Your task to perform on an android device: View the shopping cart on bestbuy.com. Search for "energizer triple a" on bestbuy.com, select the first entry, and add it to the cart. Image 0: 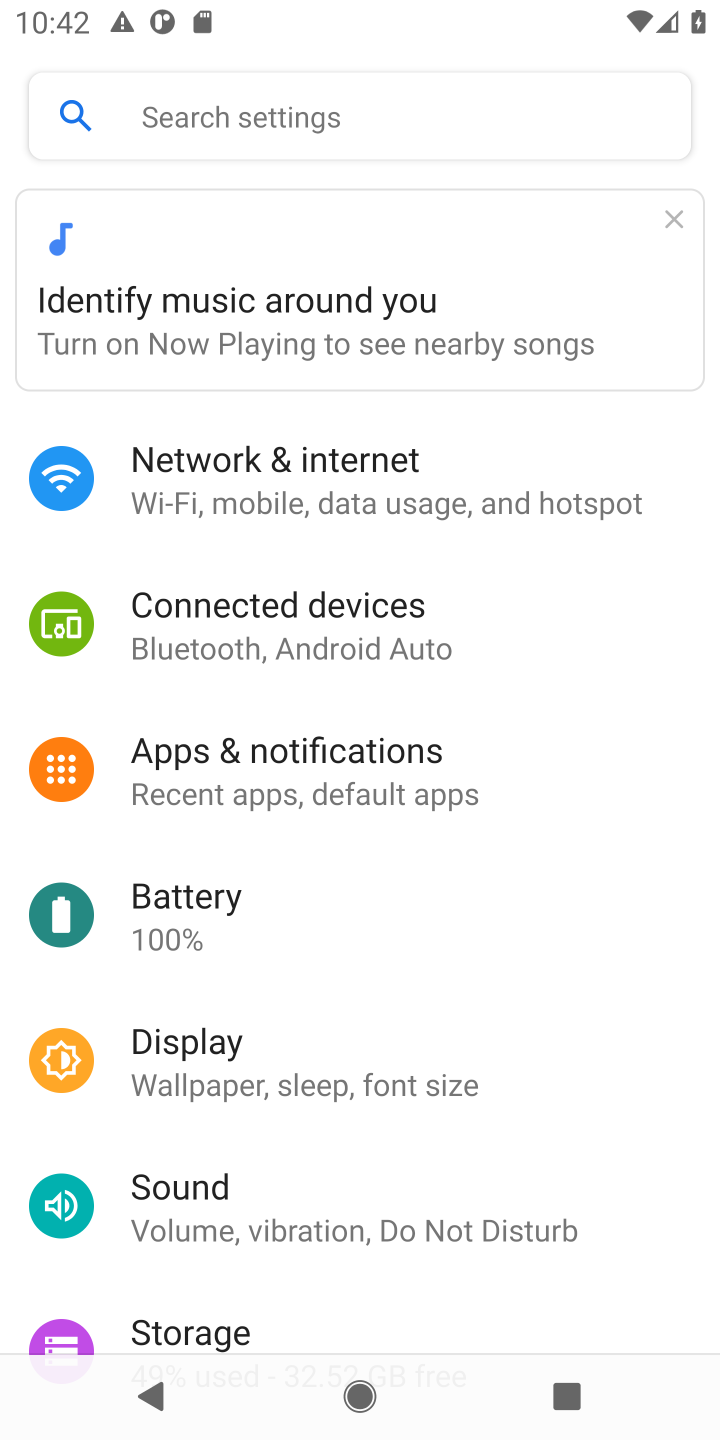
Step 0: press home button
Your task to perform on an android device: View the shopping cart on bestbuy.com. Search for "energizer triple a" on bestbuy.com, select the first entry, and add it to the cart. Image 1: 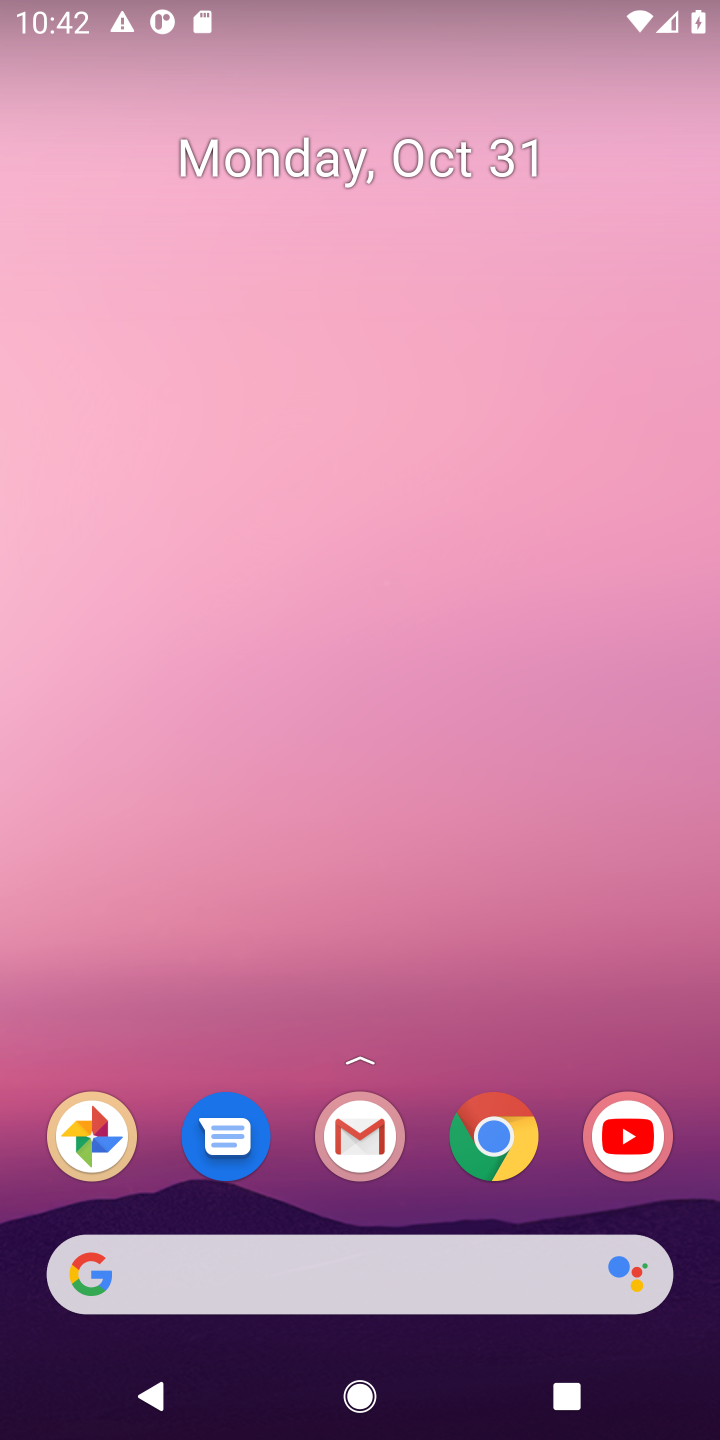
Step 1: press home button
Your task to perform on an android device: View the shopping cart on bestbuy.com. Search for "energizer triple a" on bestbuy.com, select the first entry, and add it to the cart. Image 2: 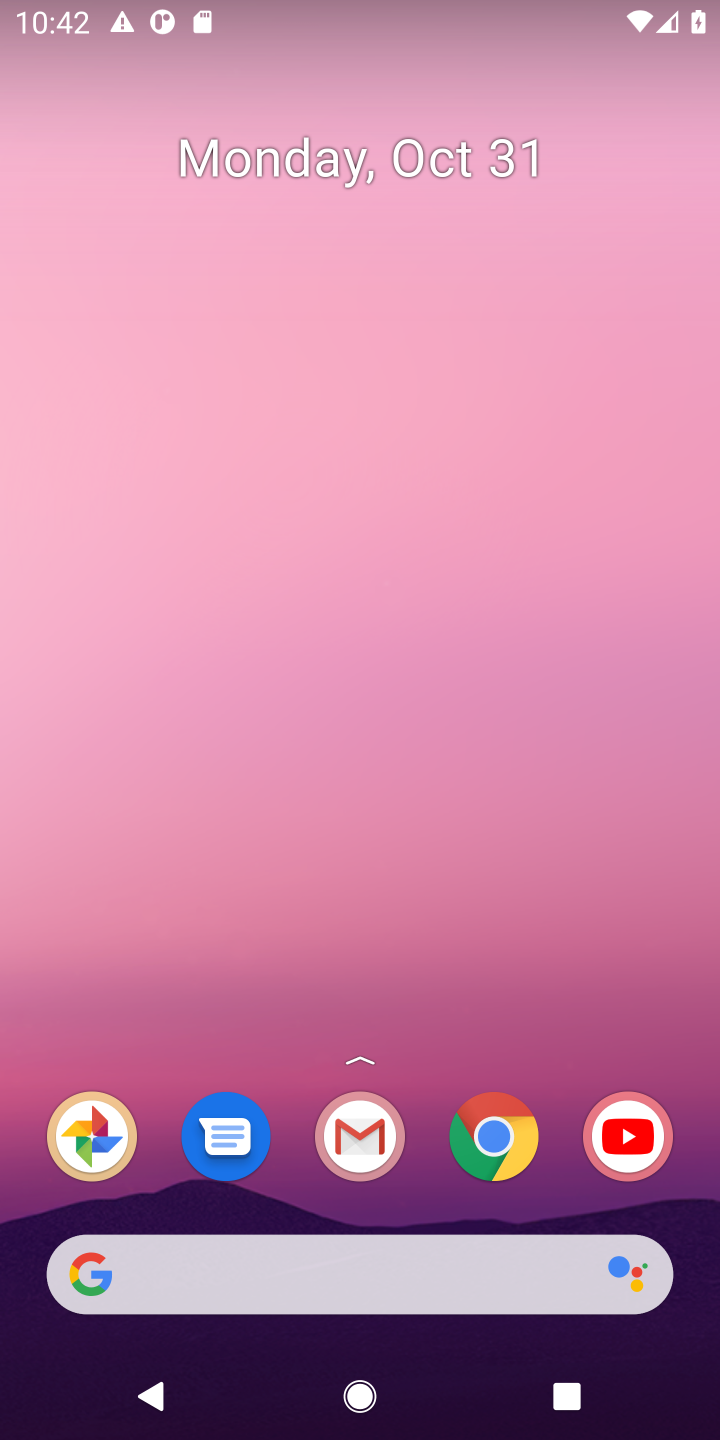
Step 2: click (175, 1265)
Your task to perform on an android device: View the shopping cart on bestbuy.com. Search for "energizer triple a" on bestbuy.com, select the first entry, and add it to the cart. Image 3: 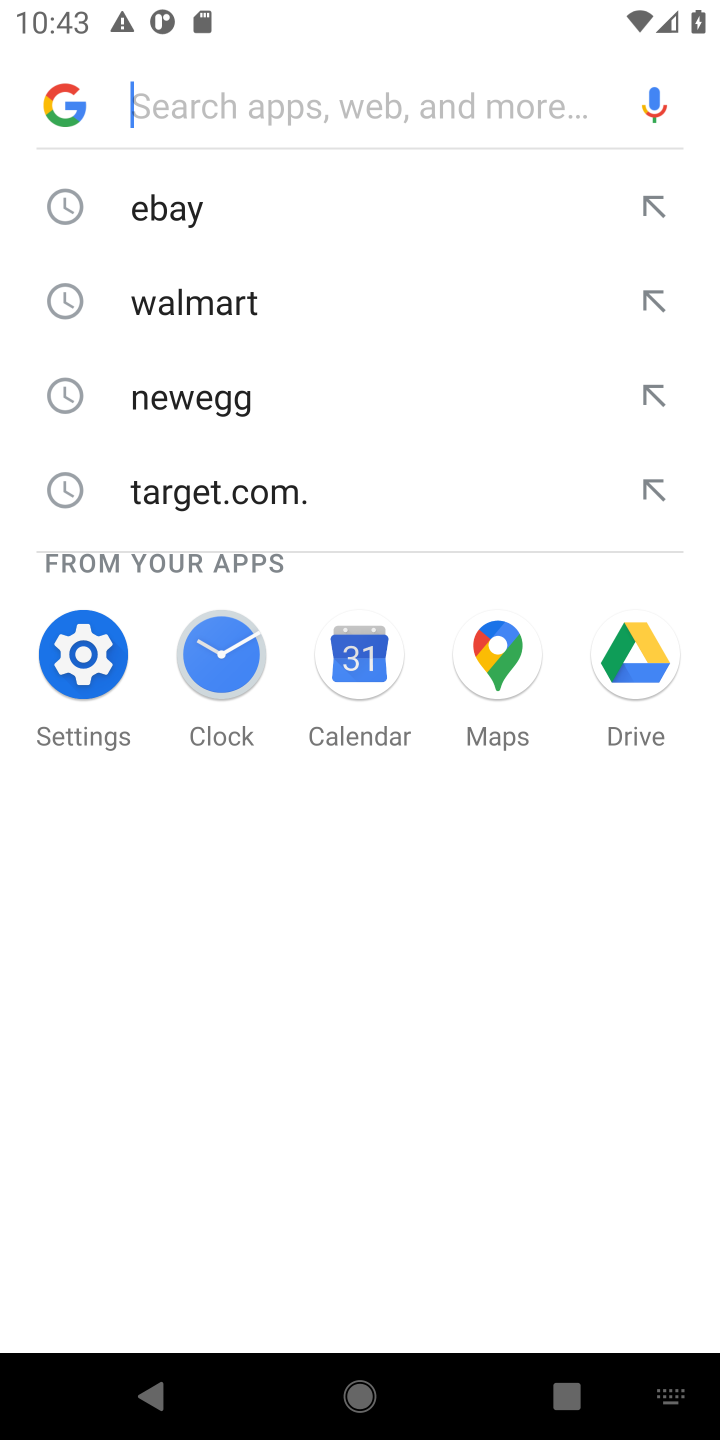
Step 3: press enter
Your task to perform on an android device: View the shopping cart on bestbuy.com. Search for "energizer triple a" on bestbuy.com, select the first entry, and add it to the cart. Image 4: 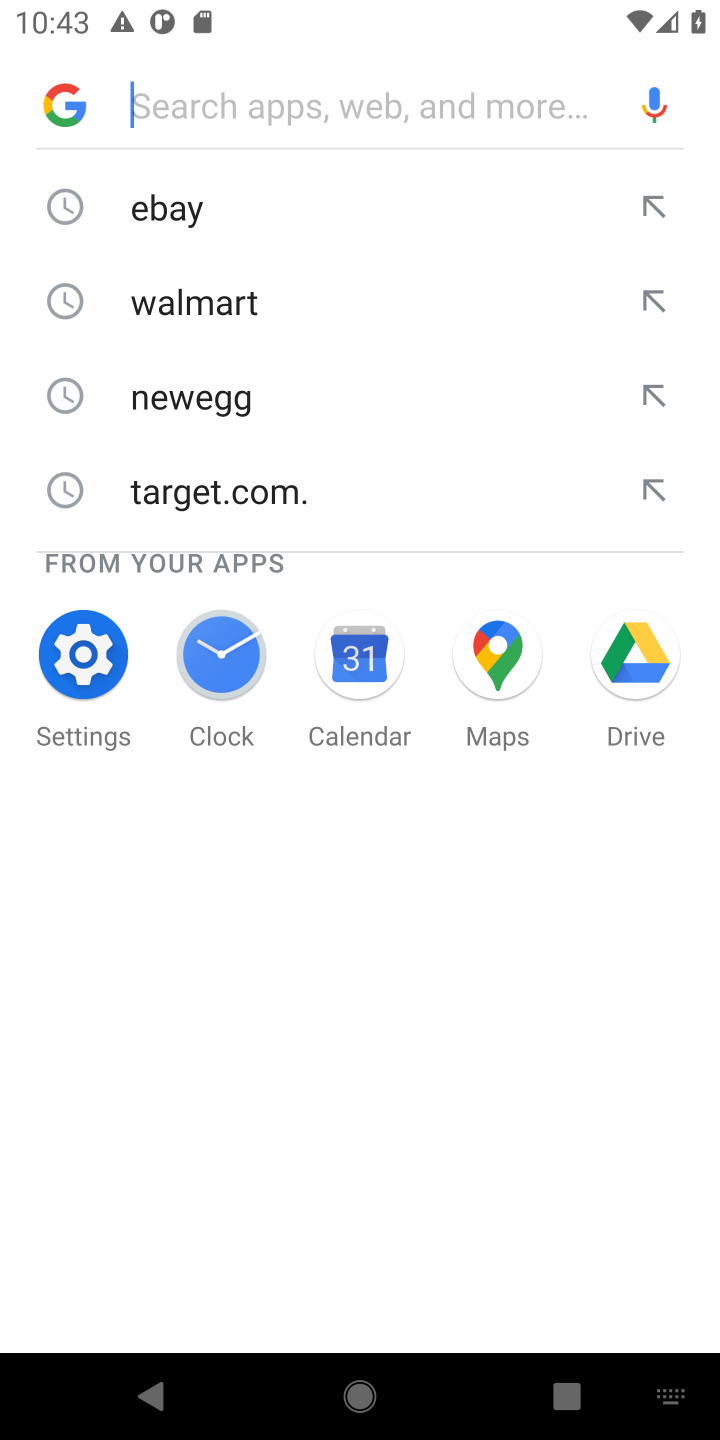
Step 4: type "bestbuy.com"
Your task to perform on an android device: View the shopping cart on bestbuy.com. Search for "energizer triple a" on bestbuy.com, select the first entry, and add it to the cart. Image 5: 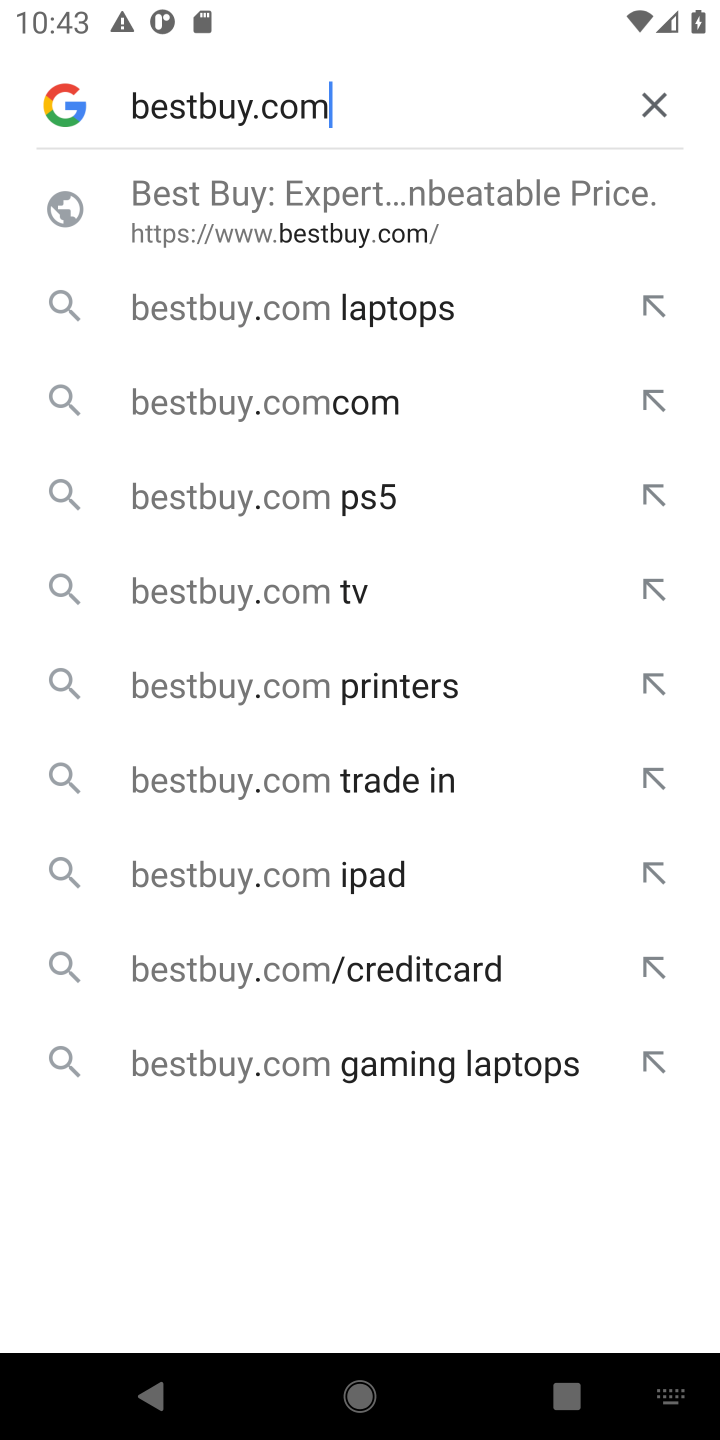
Step 5: press enter
Your task to perform on an android device: View the shopping cart on bestbuy.com. Search for "energizer triple a" on bestbuy.com, select the first entry, and add it to the cart. Image 6: 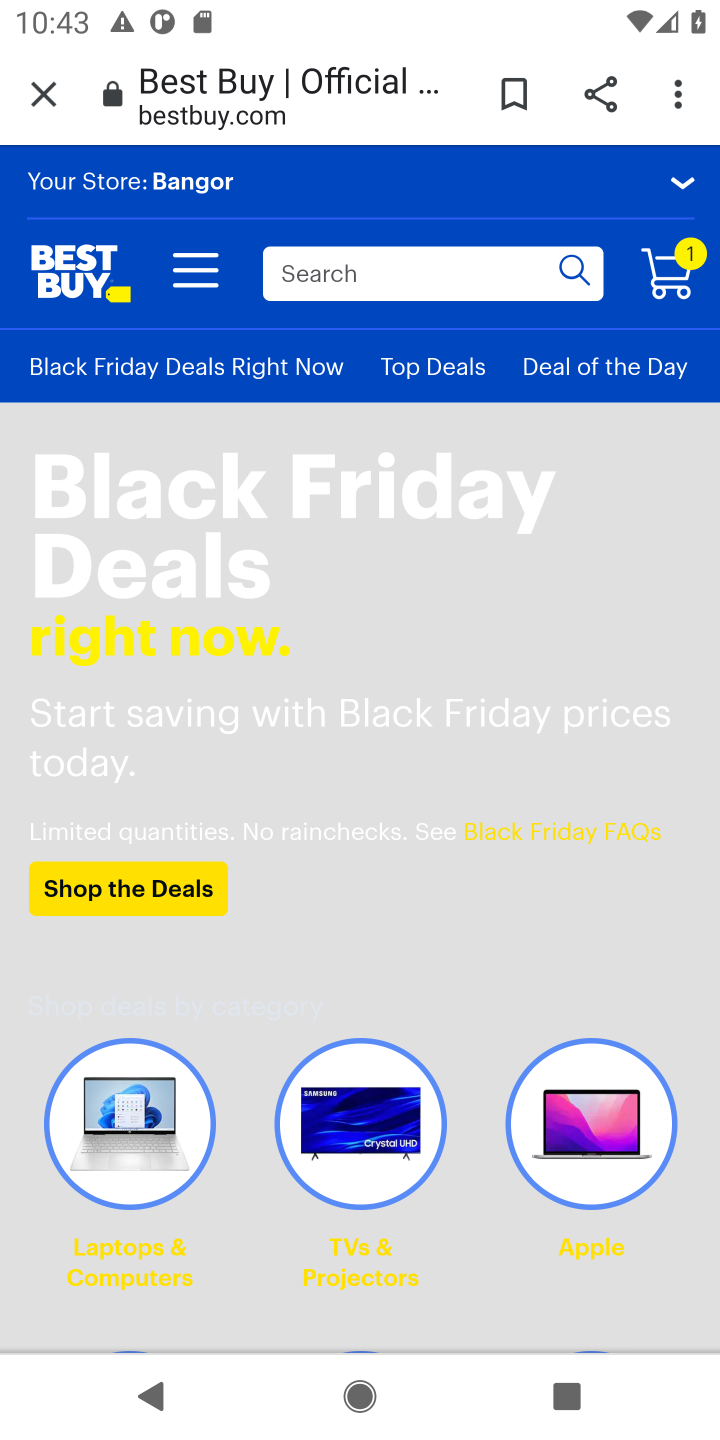
Step 6: click (677, 266)
Your task to perform on an android device: View the shopping cart on bestbuy.com. Search for "energizer triple a" on bestbuy.com, select the first entry, and add it to the cart. Image 7: 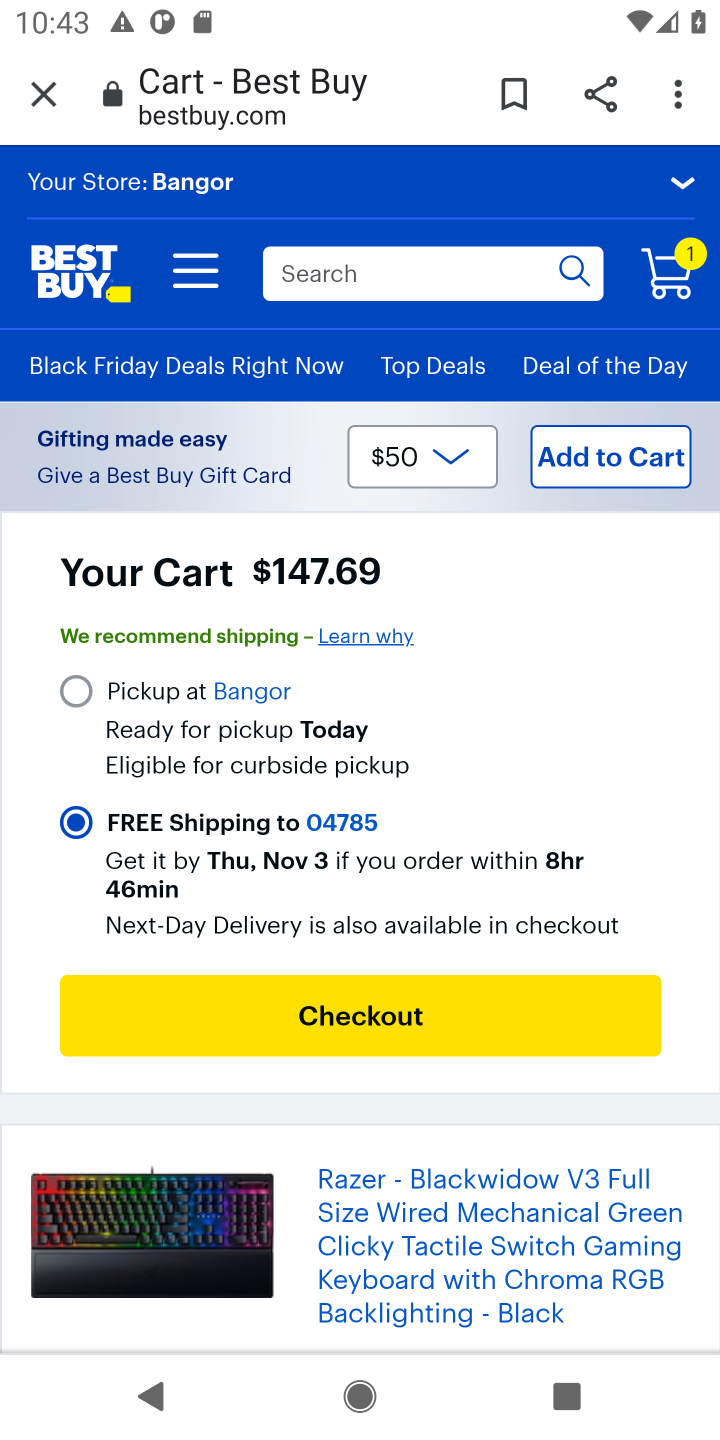
Step 7: click (341, 270)
Your task to perform on an android device: View the shopping cart on bestbuy.com. Search for "energizer triple a" on bestbuy.com, select the first entry, and add it to the cart. Image 8: 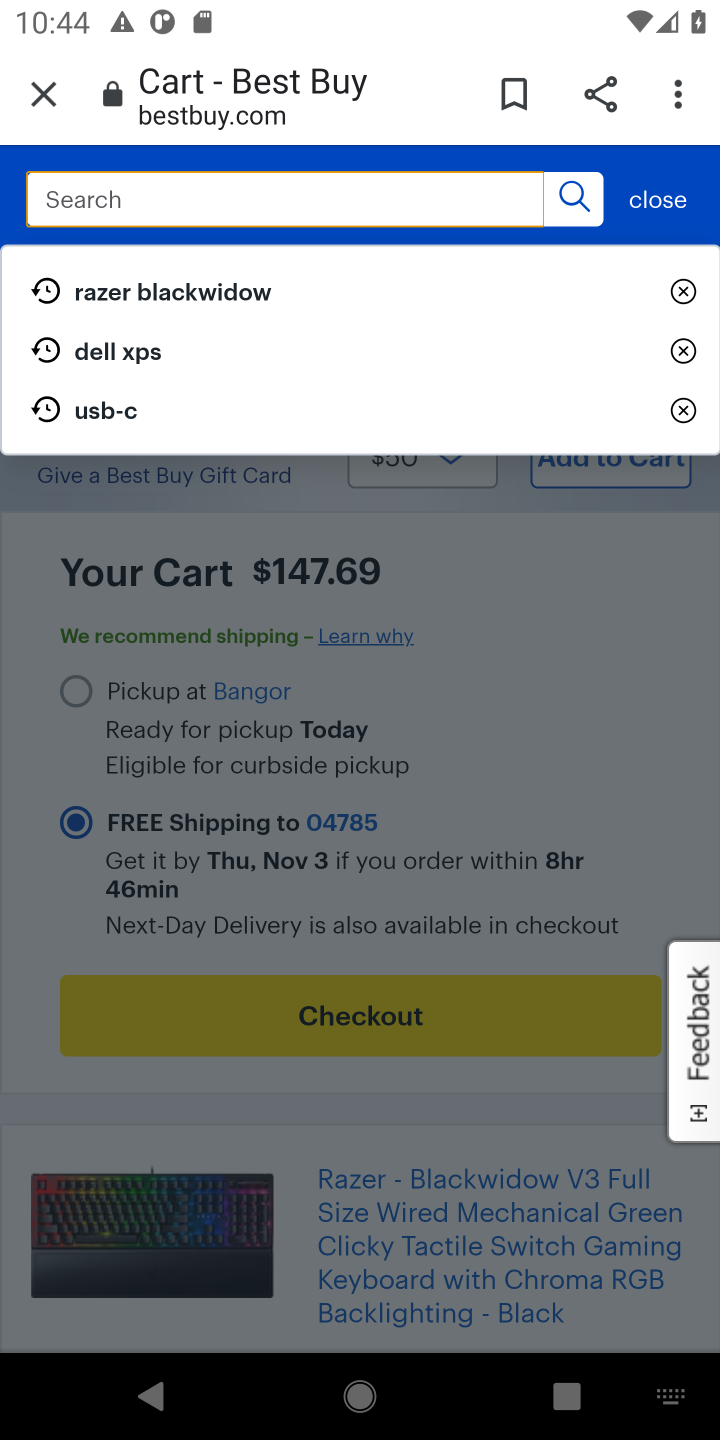
Step 8: press enter
Your task to perform on an android device: View the shopping cart on bestbuy.com. Search for "energizer triple a" on bestbuy.com, select the first entry, and add it to the cart. Image 9: 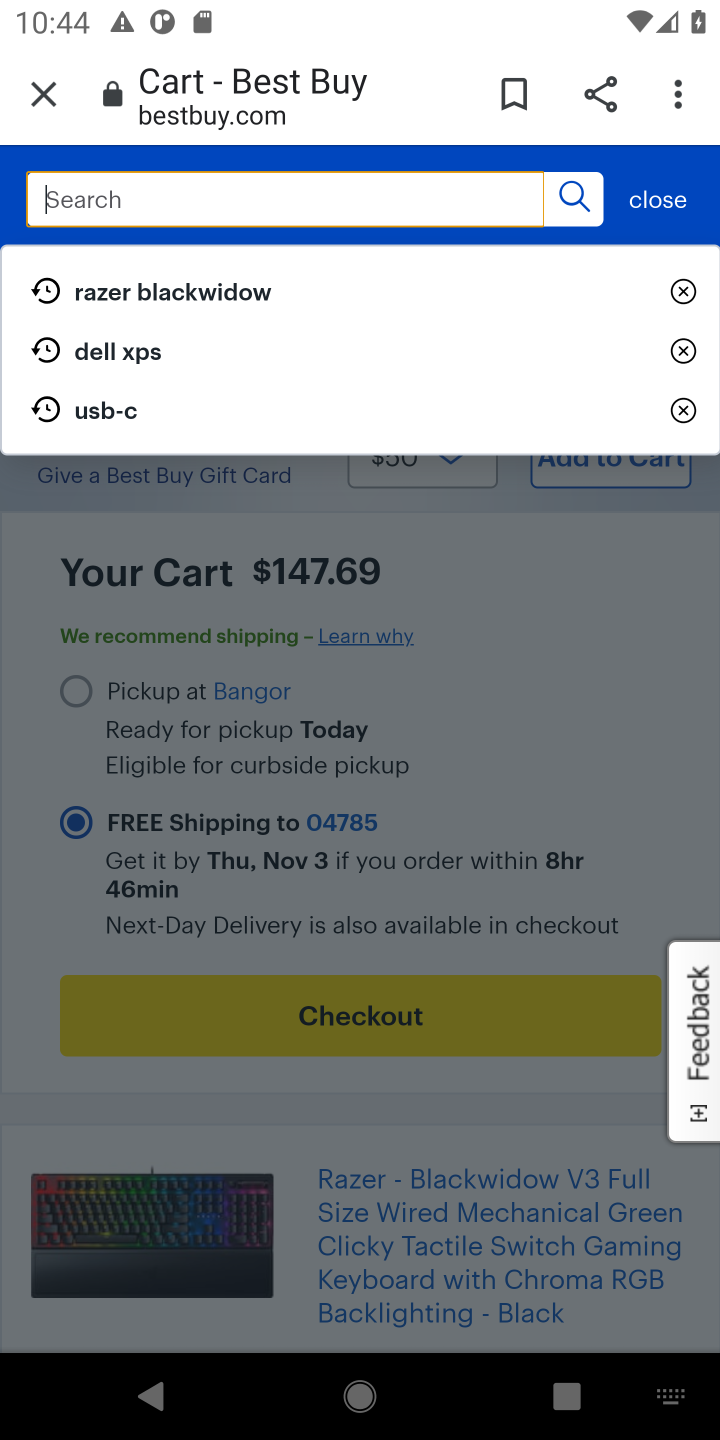
Step 9: type "energizer triple a"
Your task to perform on an android device: View the shopping cart on bestbuy.com. Search for "energizer triple a" on bestbuy.com, select the first entry, and add it to the cart. Image 10: 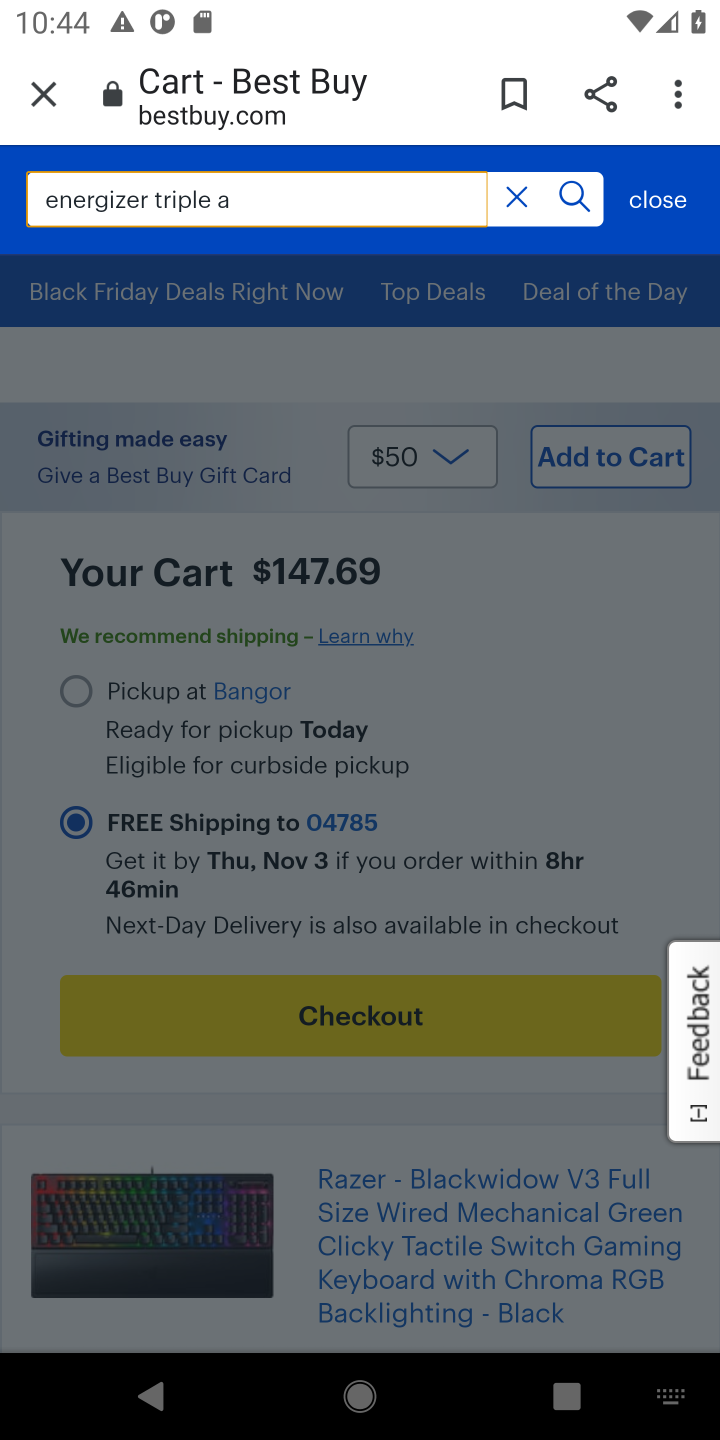
Step 10: press enter
Your task to perform on an android device: View the shopping cart on bestbuy.com. Search for "energizer triple a" on bestbuy.com, select the first entry, and add it to the cart. Image 11: 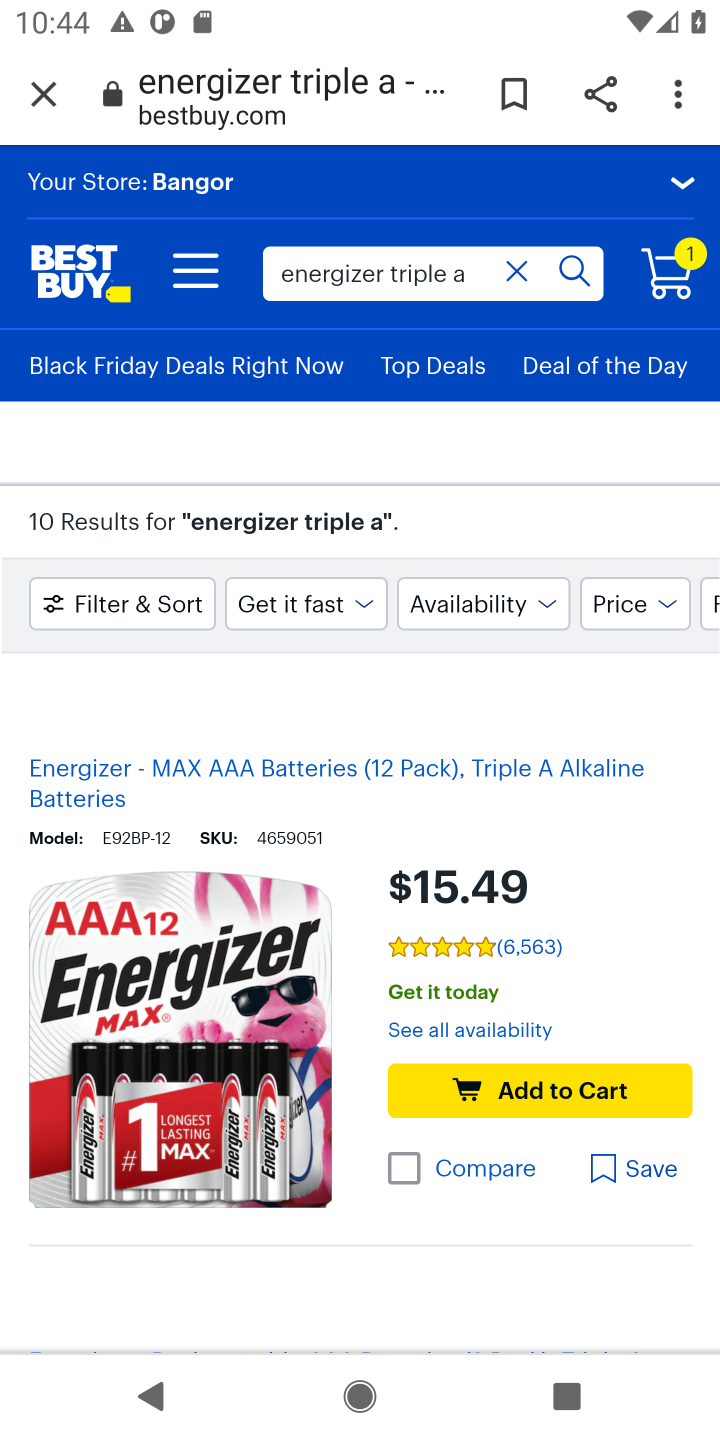
Step 11: click (528, 1090)
Your task to perform on an android device: View the shopping cart on bestbuy.com. Search for "energizer triple a" on bestbuy.com, select the first entry, and add it to the cart. Image 12: 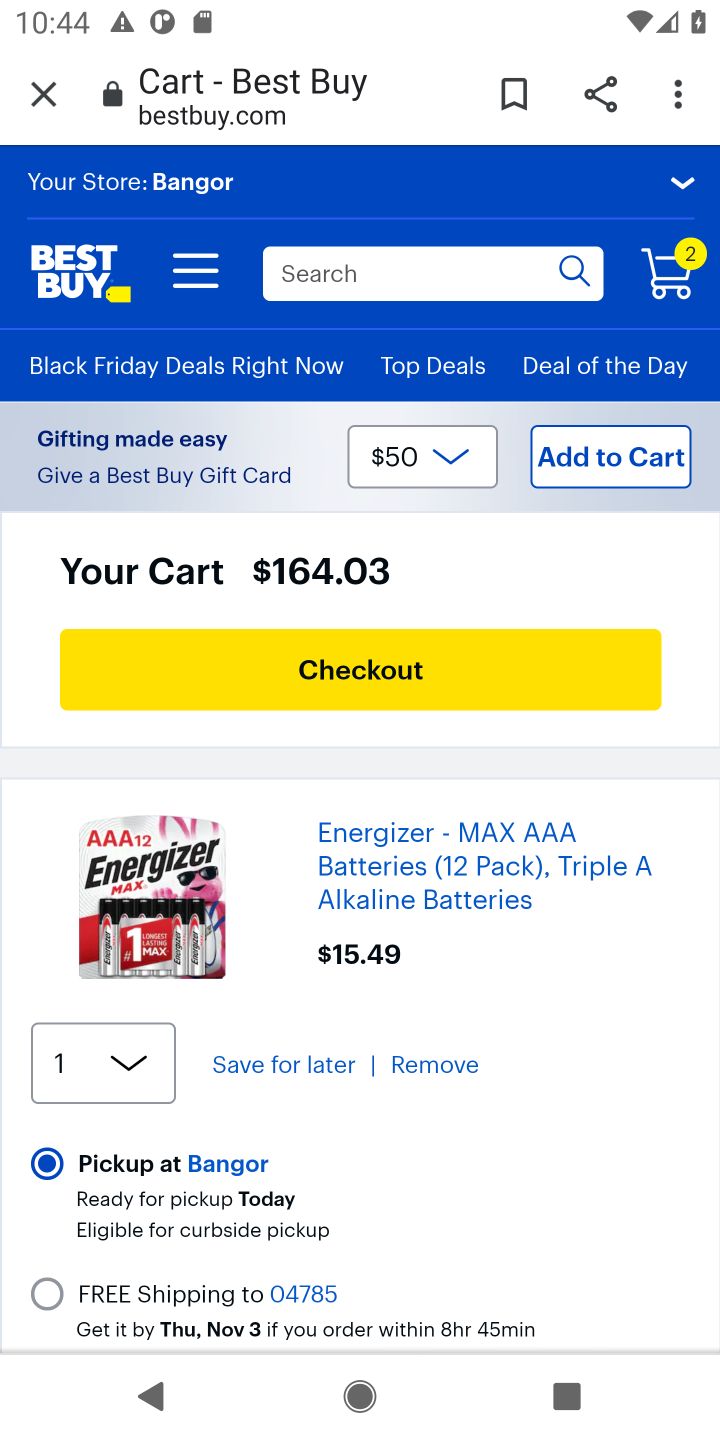
Step 12: task complete